Your task to perform on an android device: turn notification dots off Image 0: 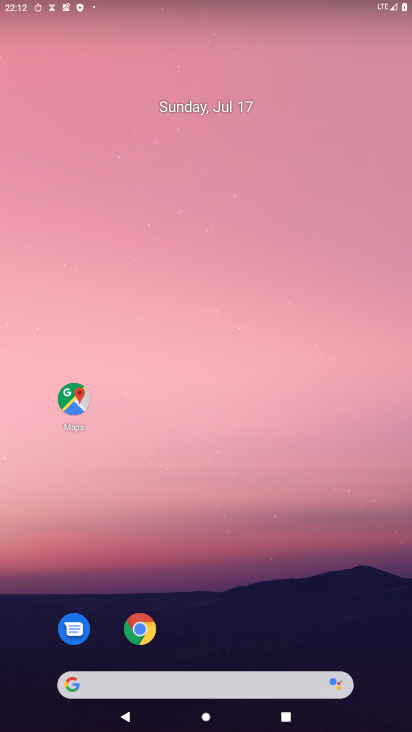
Step 0: drag from (229, 696) to (229, 89)
Your task to perform on an android device: turn notification dots off Image 1: 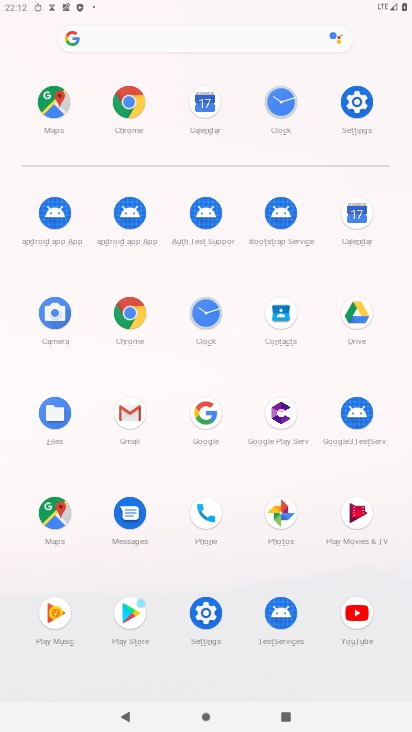
Step 1: click (358, 99)
Your task to perform on an android device: turn notification dots off Image 2: 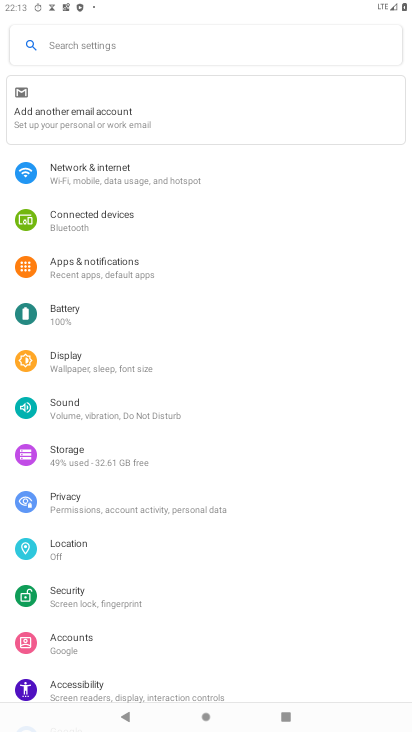
Step 2: click (97, 269)
Your task to perform on an android device: turn notification dots off Image 3: 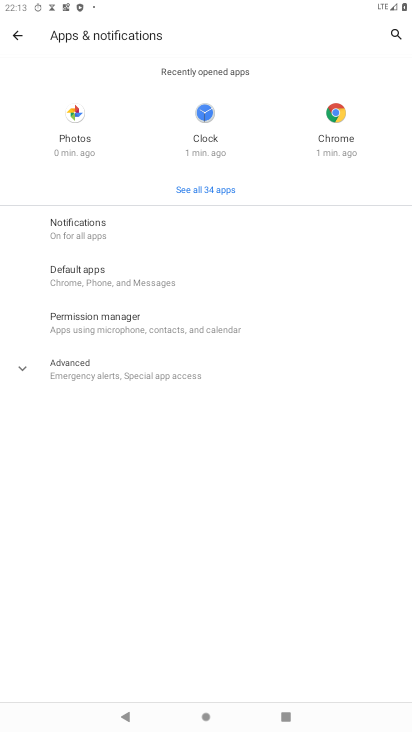
Step 3: click (83, 234)
Your task to perform on an android device: turn notification dots off Image 4: 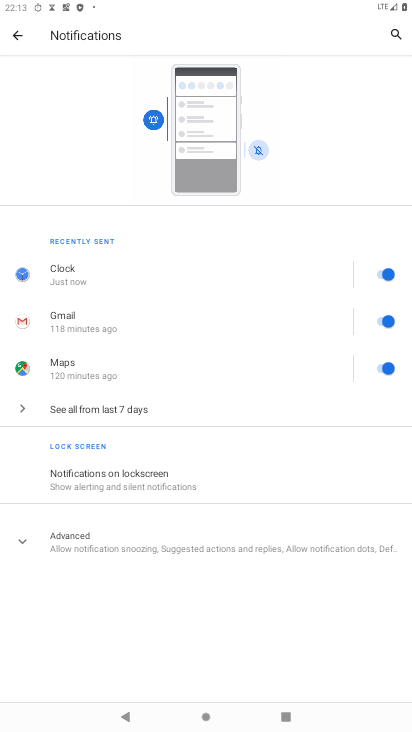
Step 4: click (109, 543)
Your task to perform on an android device: turn notification dots off Image 5: 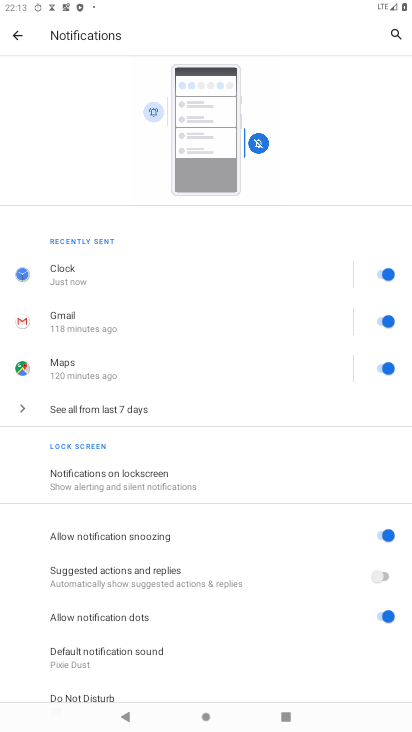
Step 5: click (383, 611)
Your task to perform on an android device: turn notification dots off Image 6: 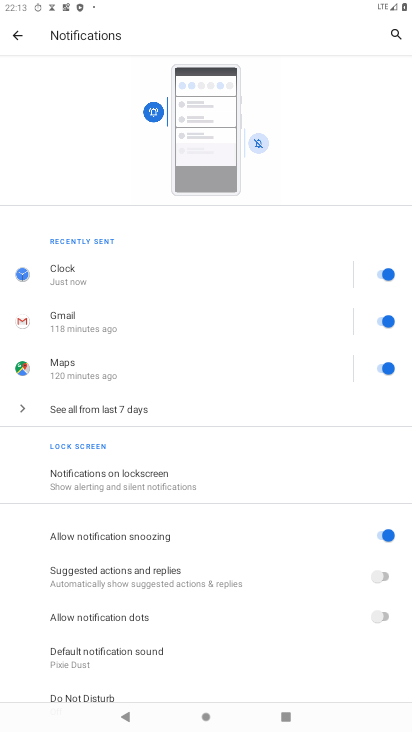
Step 6: task complete